Your task to perform on an android device: turn on bluetooth scan Image 0: 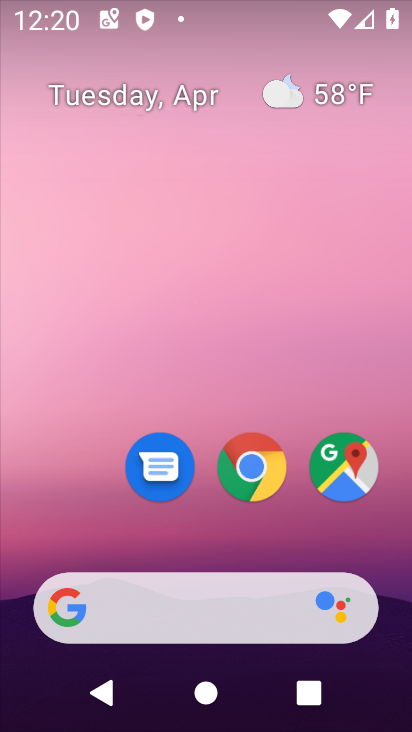
Step 0: drag from (275, 18) to (313, 555)
Your task to perform on an android device: turn on bluetooth scan Image 1: 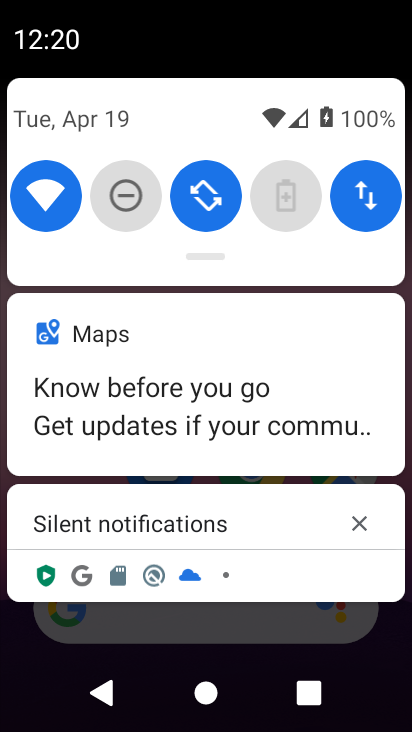
Step 1: drag from (240, 86) to (215, 725)
Your task to perform on an android device: turn on bluetooth scan Image 2: 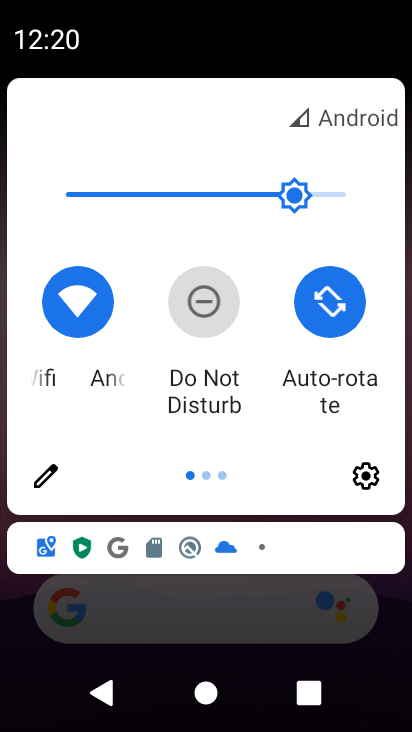
Step 2: click (379, 478)
Your task to perform on an android device: turn on bluetooth scan Image 3: 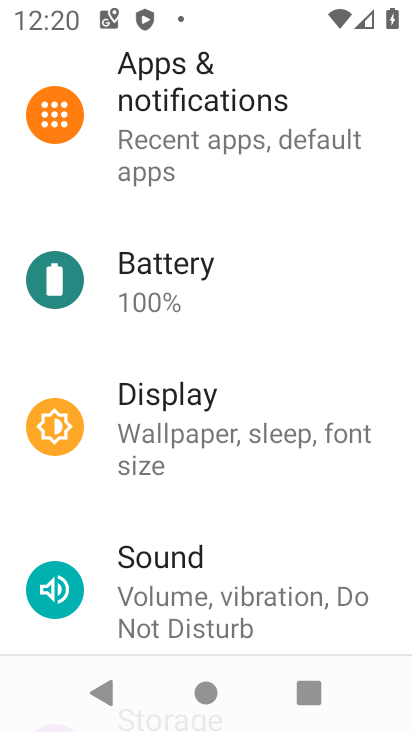
Step 3: drag from (197, 218) to (227, 696)
Your task to perform on an android device: turn on bluetooth scan Image 4: 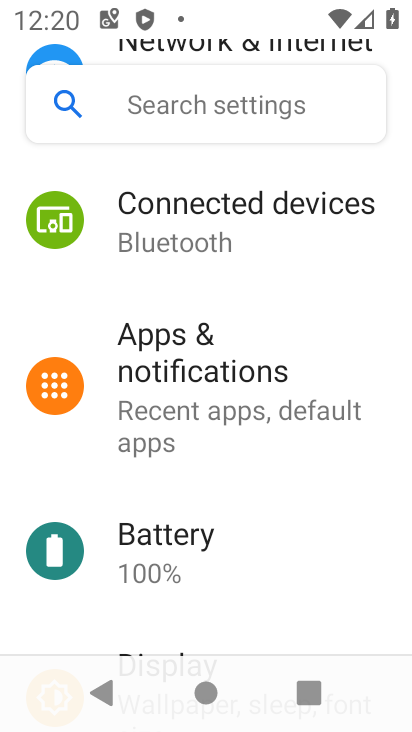
Step 4: drag from (201, 253) to (148, 727)
Your task to perform on an android device: turn on bluetooth scan Image 5: 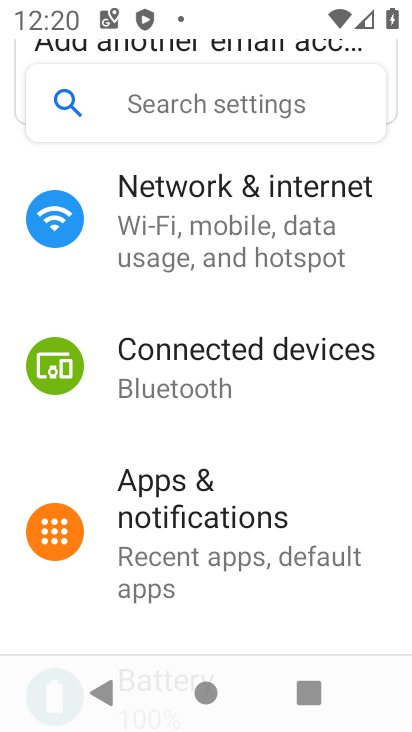
Step 5: drag from (186, 242) to (244, 668)
Your task to perform on an android device: turn on bluetooth scan Image 6: 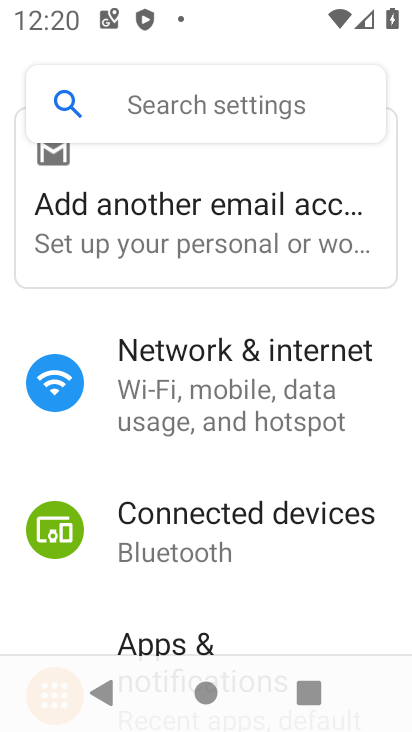
Step 6: drag from (194, 572) to (195, 129)
Your task to perform on an android device: turn on bluetooth scan Image 7: 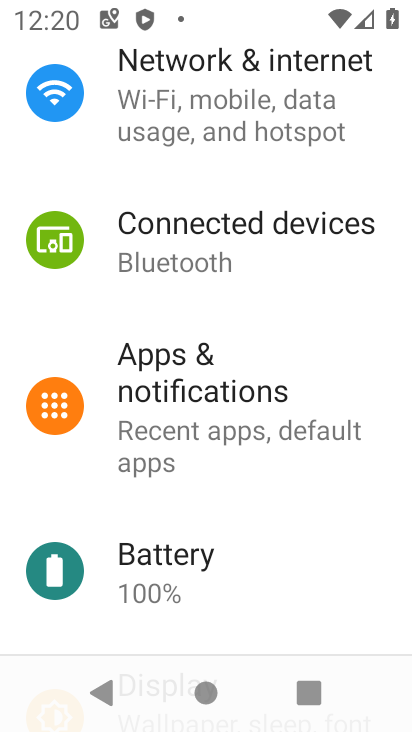
Step 7: drag from (231, 571) to (224, 160)
Your task to perform on an android device: turn on bluetooth scan Image 8: 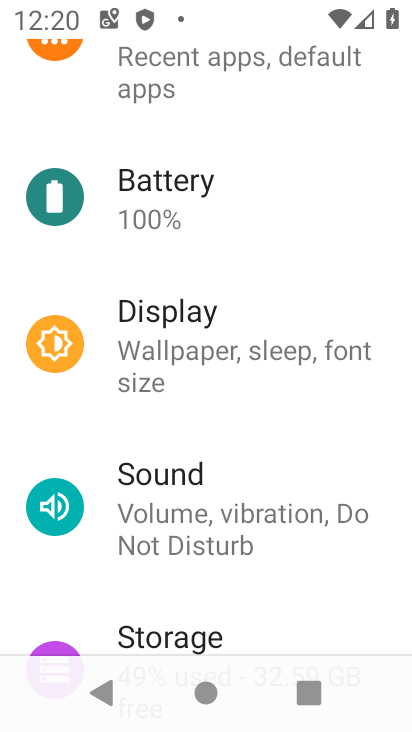
Step 8: drag from (208, 607) to (249, 203)
Your task to perform on an android device: turn on bluetooth scan Image 9: 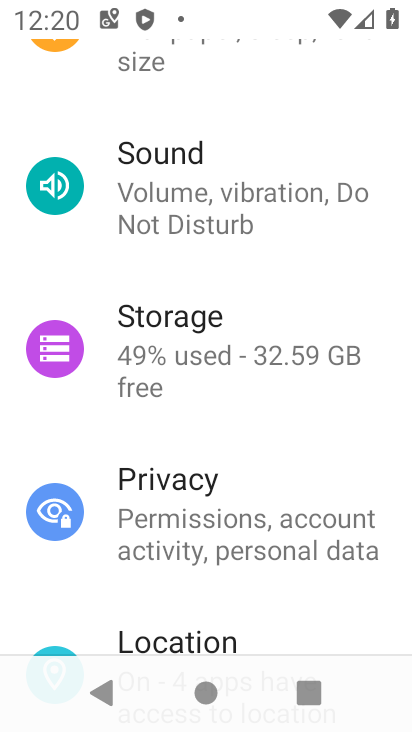
Step 9: drag from (172, 516) to (197, 56)
Your task to perform on an android device: turn on bluetooth scan Image 10: 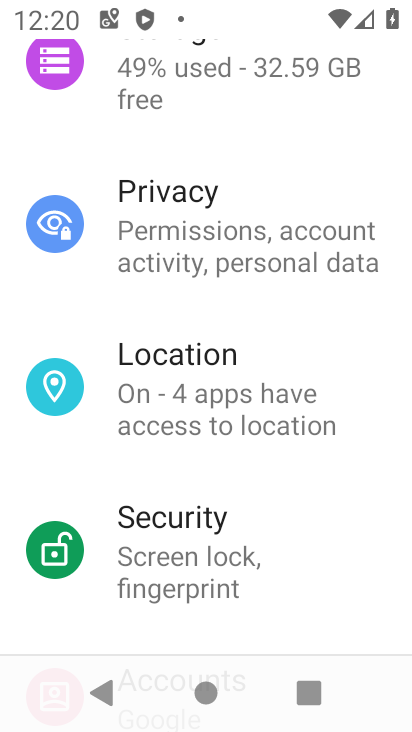
Step 10: drag from (123, 612) to (211, 164)
Your task to perform on an android device: turn on bluetooth scan Image 11: 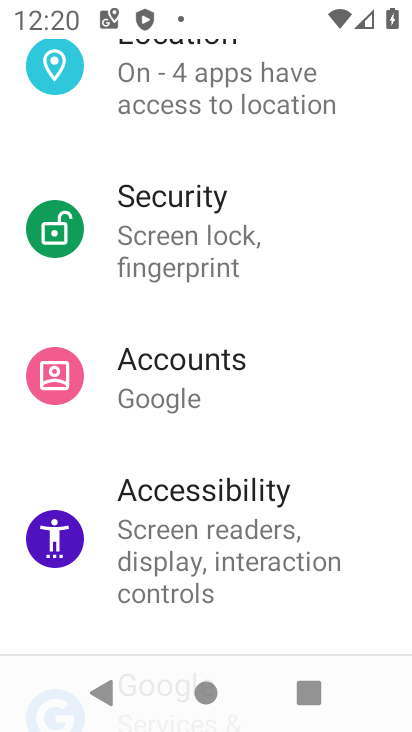
Step 11: drag from (213, 618) to (224, 226)
Your task to perform on an android device: turn on bluetooth scan Image 12: 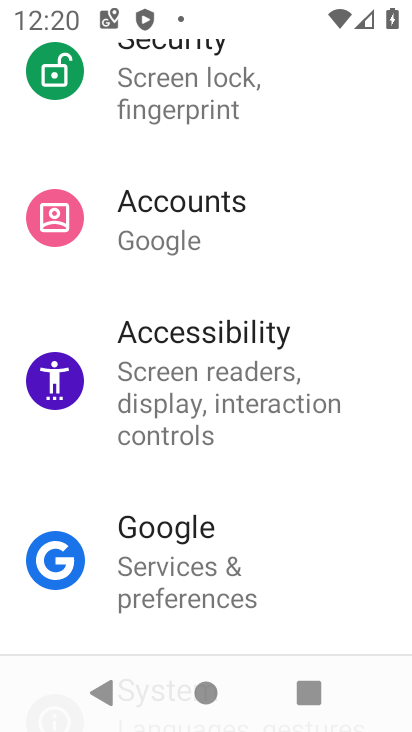
Step 12: drag from (266, 244) to (186, 634)
Your task to perform on an android device: turn on bluetooth scan Image 13: 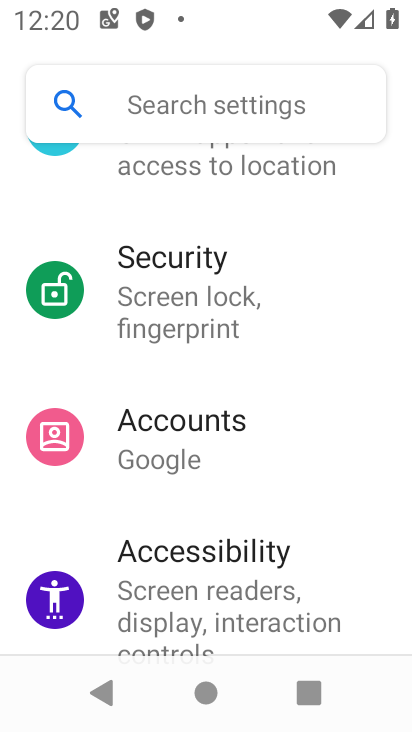
Step 13: drag from (193, 245) to (206, 600)
Your task to perform on an android device: turn on bluetooth scan Image 14: 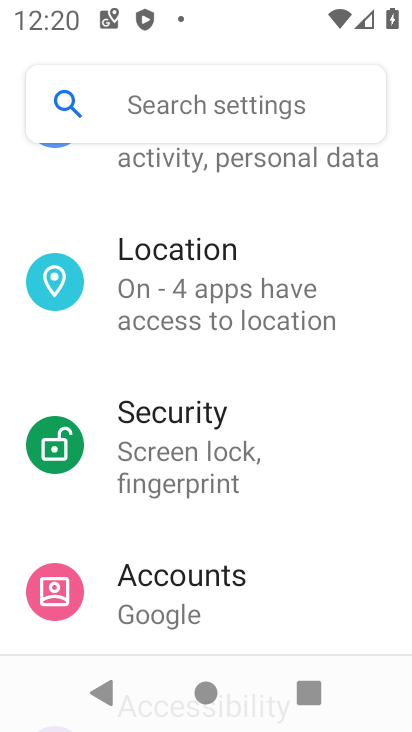
Step 14: click (147, 310)
Your task to perform on an android device: turn on bluetooth scan Image 15: 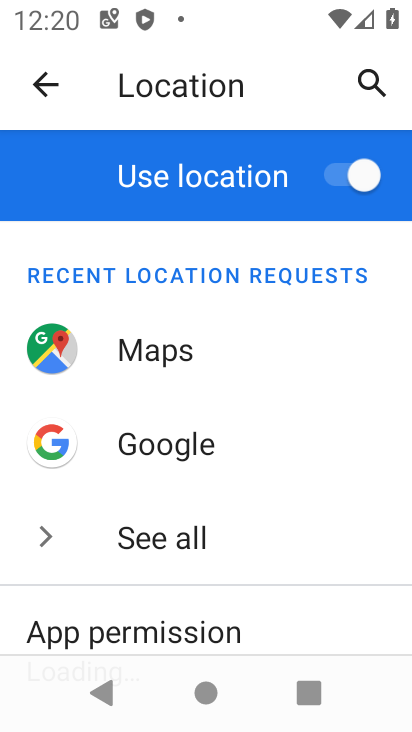
Step 15: drag from (67, 618) to (87, 143)
Your task to perform on an android device: turn on bluetooth scan Image 16: 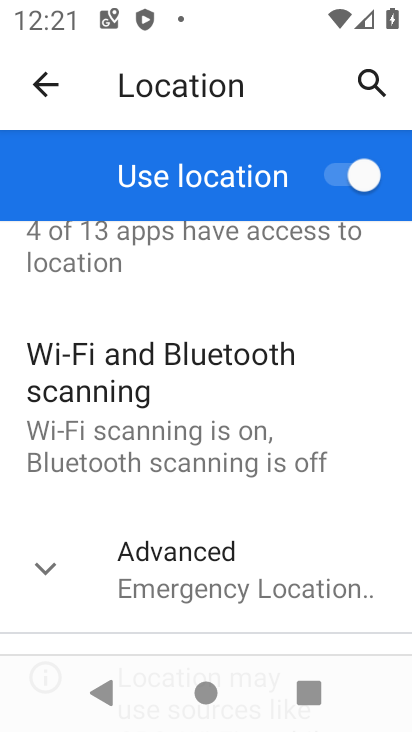
Step 16: drag from (157, 591) to (173, 215)
Your task to perform on an android device: turn on bluetooth scan Image 17: 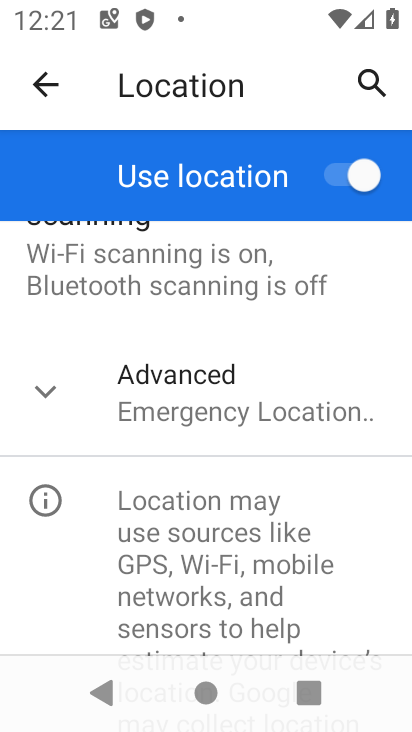
Step 17: drag from (232, 321) to (265, 527)
Your task to perform on an android device: turn on bluetooth scan Image 18: 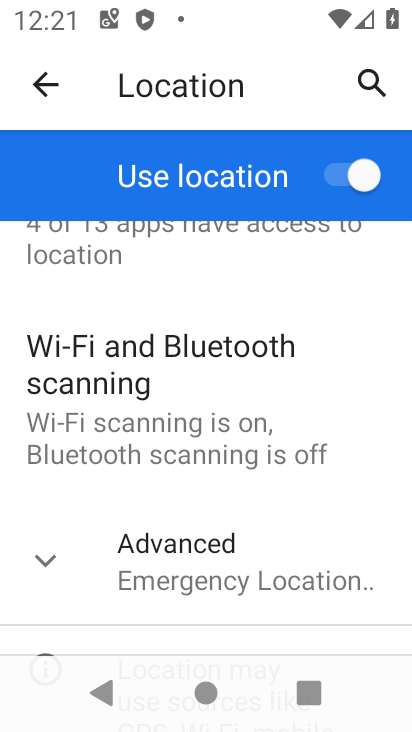
Step 18: click (219, 449)
Your task to perform on an android device: turn on bluetooth scan Image 19: 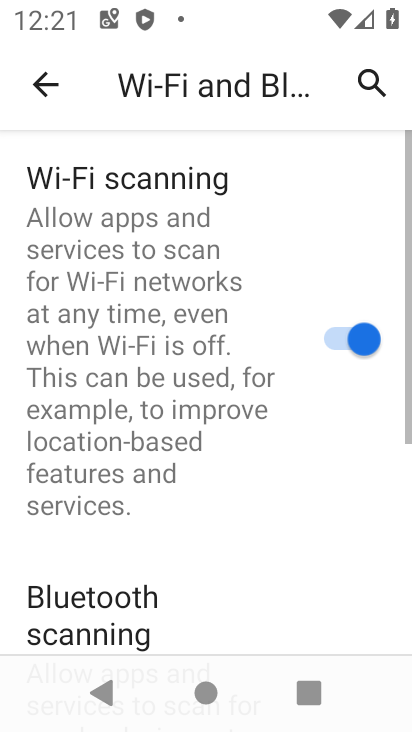
Step 19: drag from (198, 601) to (223, 234)
Your task to perform on an android device: turn on bluetooth scan Image 20: 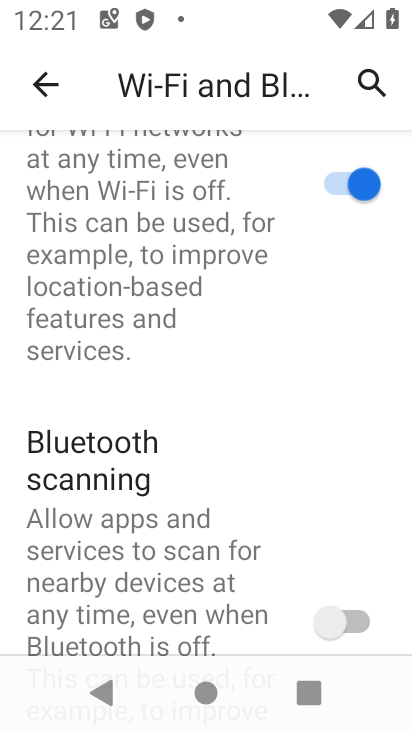
Step 20: click (360, 611)
Your task to perform on an android device: turn on bluetooth scan Image 21: 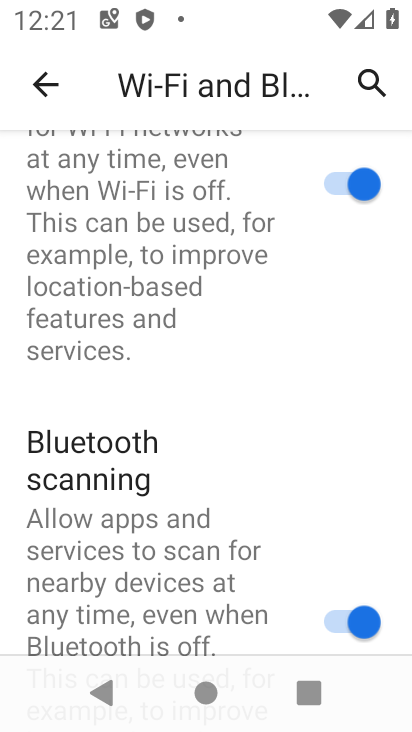
Step 21: task complete